Your task to perform on an android device: Show me the alarms in the clock app Image 0: 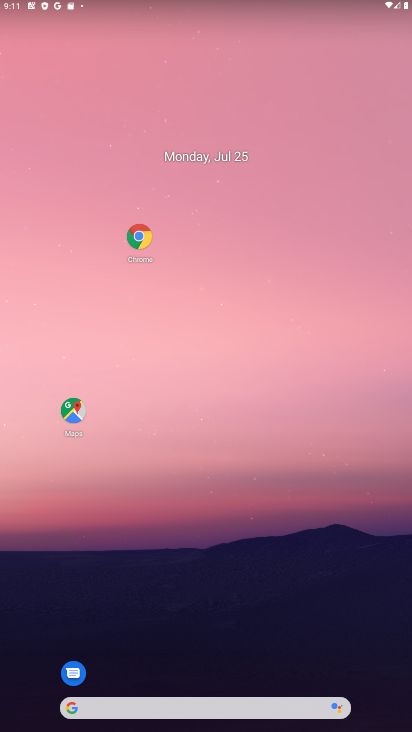
Step 0: drag from (292, 668) to (236, 116)
Your task to perform on an android device: Show me the alarms in the clock app Image 1: 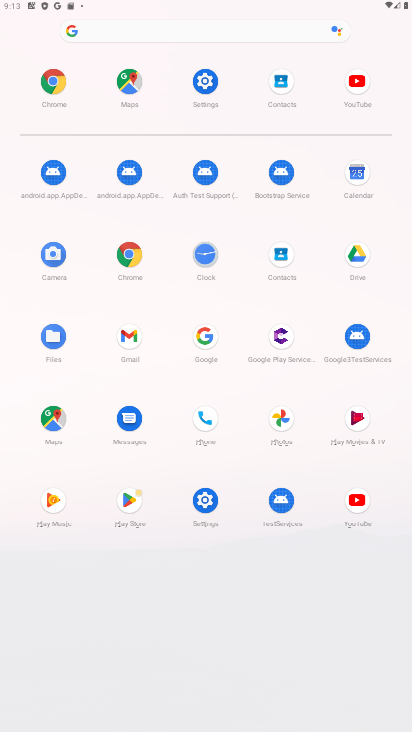
Step 1: click (208, 257)
Your task to perform on an android device: Show me the alarms in the clock app Image 2: 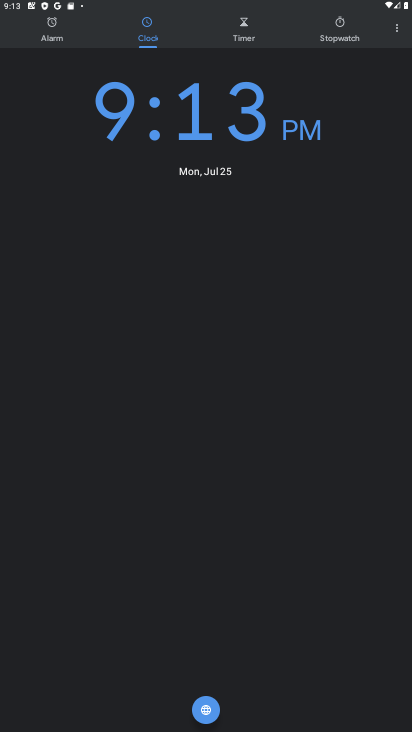
Step 2: task complete